Your task to perform on an android device: Go to privacy settings Image 0: 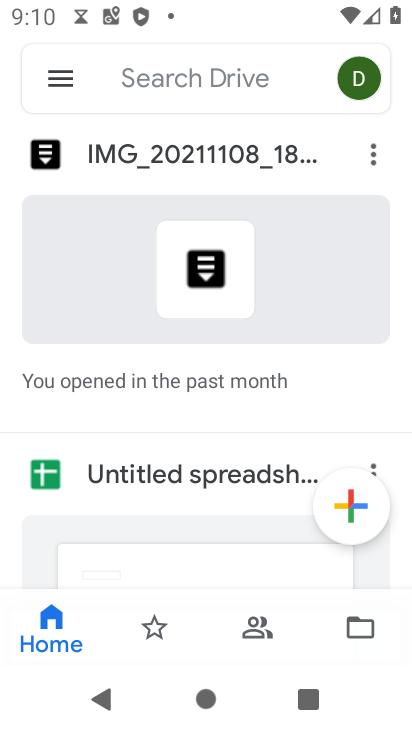
Step 0: press home button
Your task to perform on an android device: Go to privacy settings Image 1: 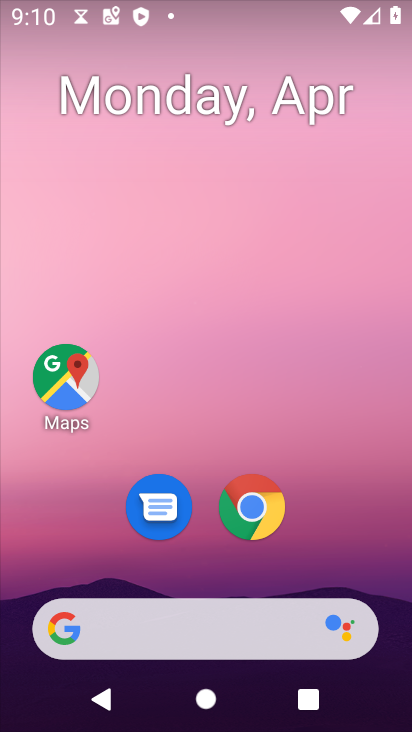
Step 1: drag from (314, 556) to (255, 149)
Your task to perform on an android device: Go to privacy settings Image 2: 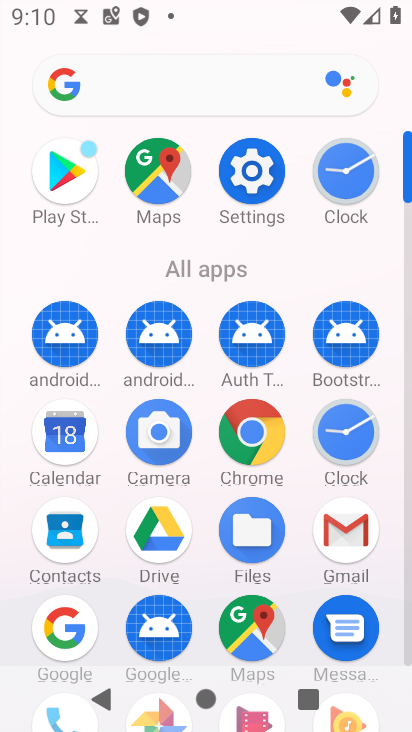
Step 2: click (253, 433)
Your task to perform on an android device: Go to privacy settings Image 3: 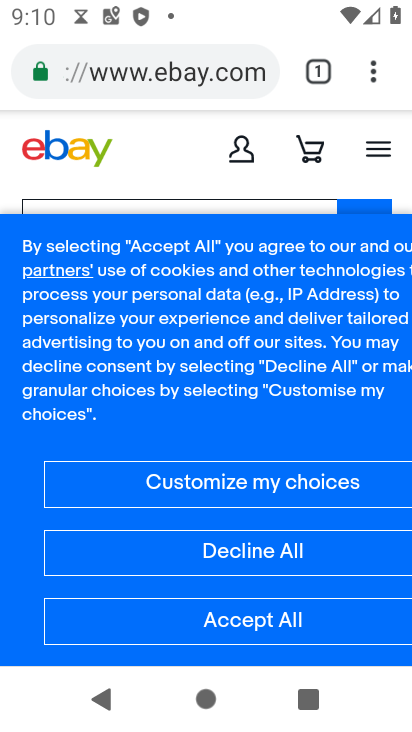
Step 3: click (369, 77)
Your task to perform on an android device: Go to privacy settings Image 4: 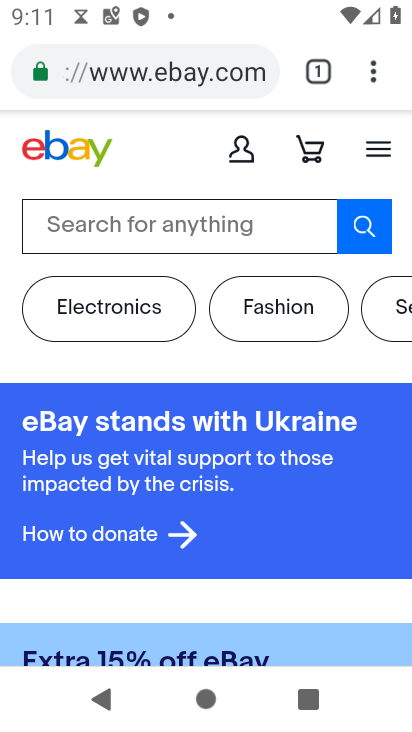
Step 4: click (369, 77)
Your task to perform on an android device: Go to privacy settings Image 5: 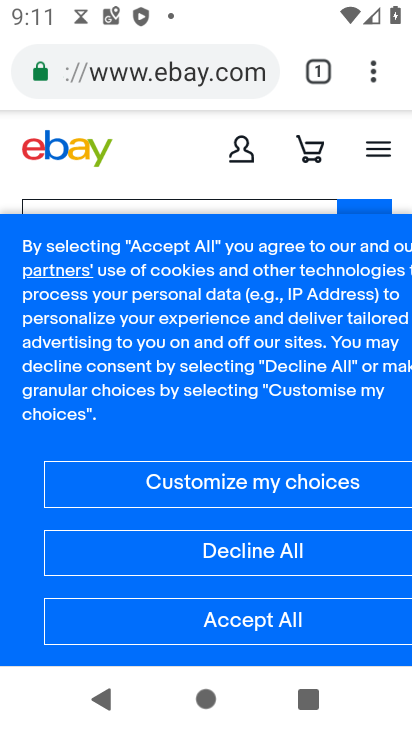
Step 5: click (369, 77)
Your task to perform on an android device: Go to privacy settings Image 6: 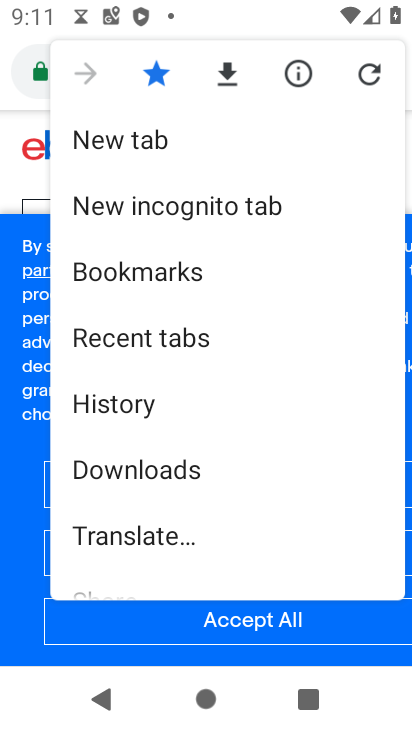
Step 6: drag from (142, 521) to (133, 311)
Your task to perform on an android device: Go to privacy settings Image 7: 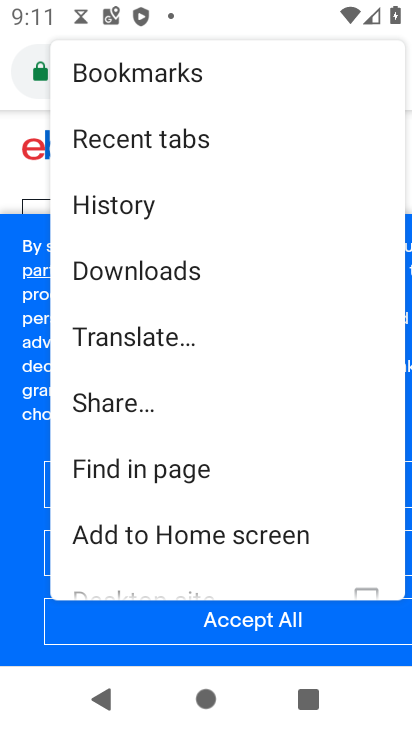
Step 7: drag from (137, 549) to (134, 319)
Your task to perform on an android device: Go to privacy settings Image 8: 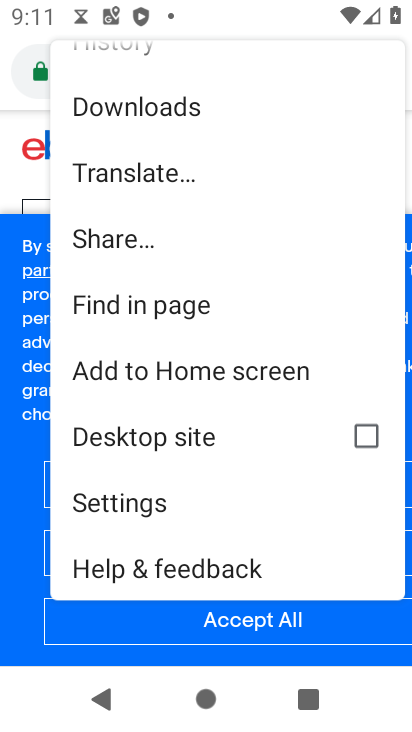
Step 8: click (108, 488)
Your task to perform on an android device: Go to privacy settings Image 9: 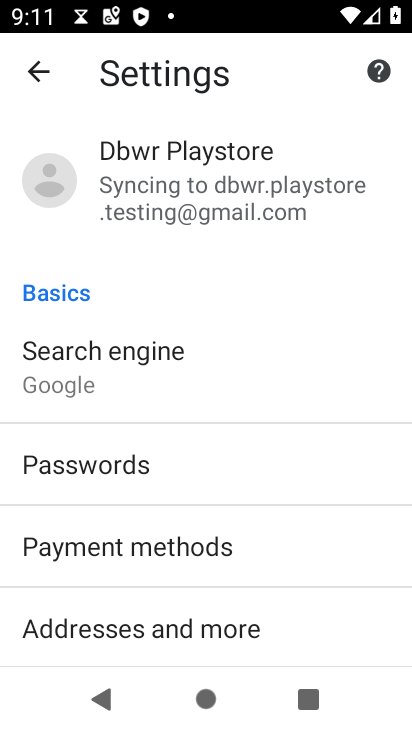
Step 9: drag from (158, 591) to (163, 431)
Your task to perform on an android device: Go to privacy settings Image 10: 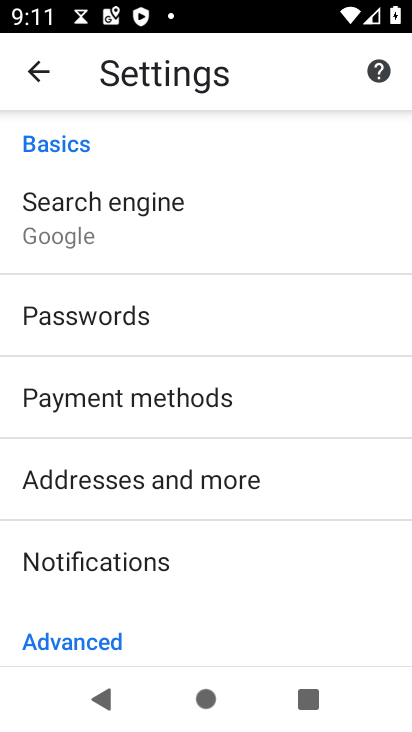
Step 10: drag from (163, 573) to (164, 447)
Your task to perform on an android device: Go to privacy settings Image 11: 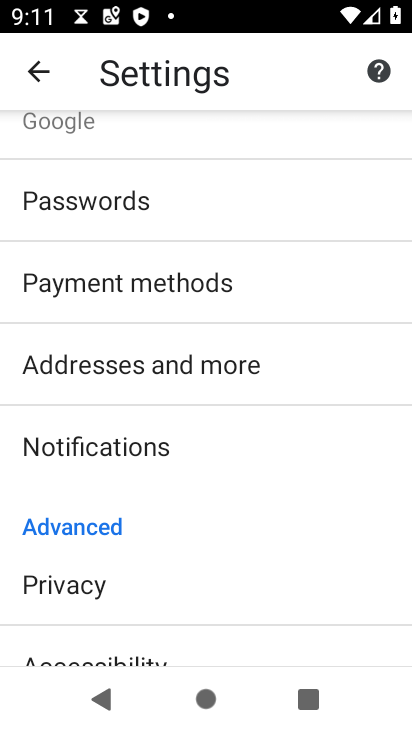
Step 11: click (175, 582)
Your task to perform on an android device: Go to privacy settings Image 12: 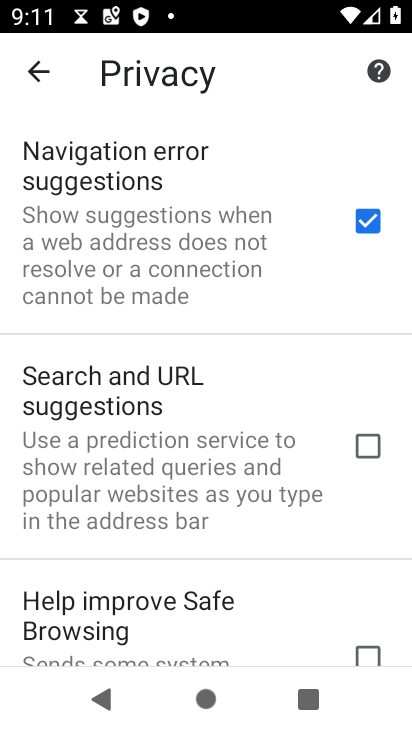
Step 12: task complete